Your task to perform on an android device: Open the Play Movies app and select the watchlist tab. Image 0: 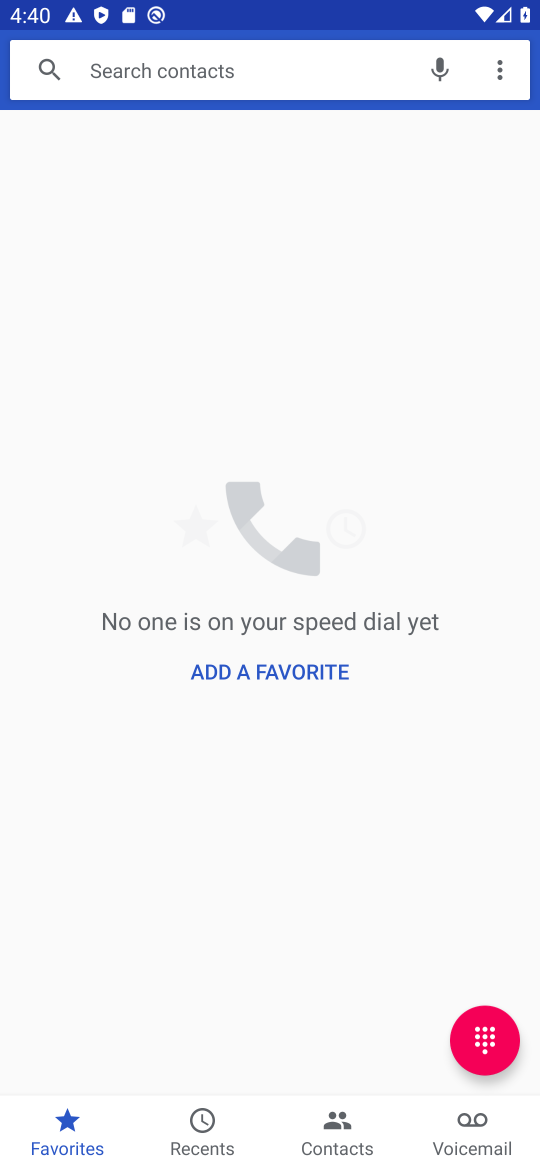
Step 0: press home button
Your task to perform on an android device: Open the Play Movies app and select the watchlist tab. Image 1: 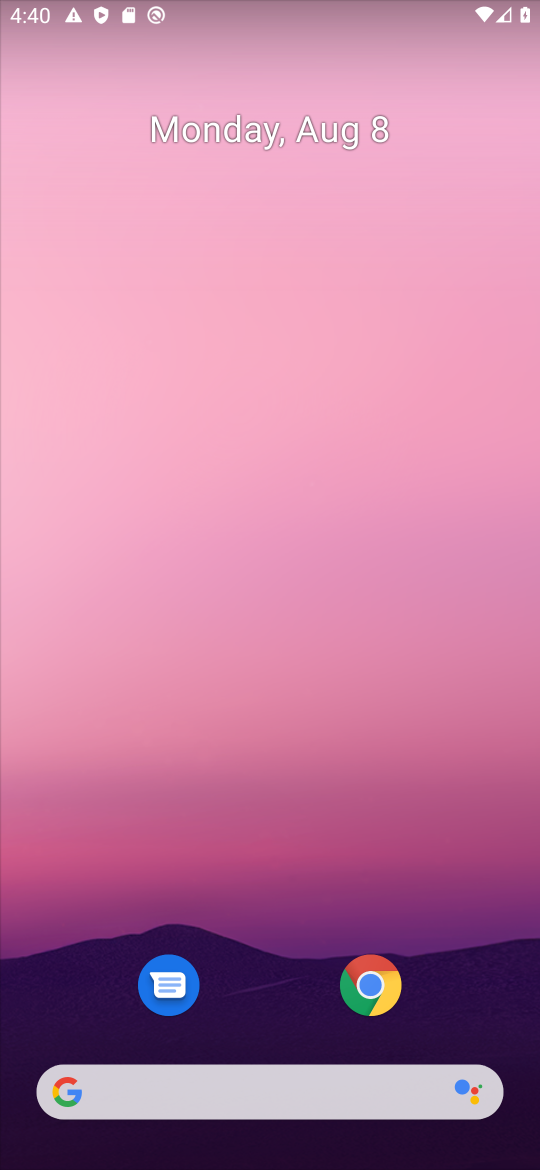
Step 1: drag from (368, 852) to (335, 166)
Your task to perform on an android device: Open the Play Movies app and select the watchlist tab. Image 2: 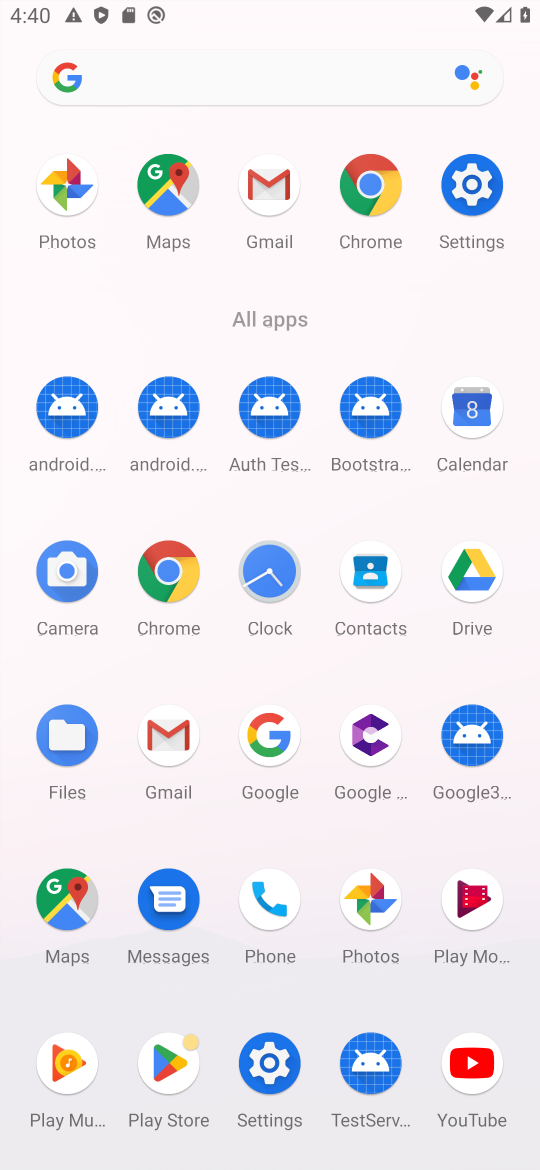
Step 2: click (372, 176)
Your task to perform on an android device: Open the Play Movies app and select the watchlist tab. Image 3: 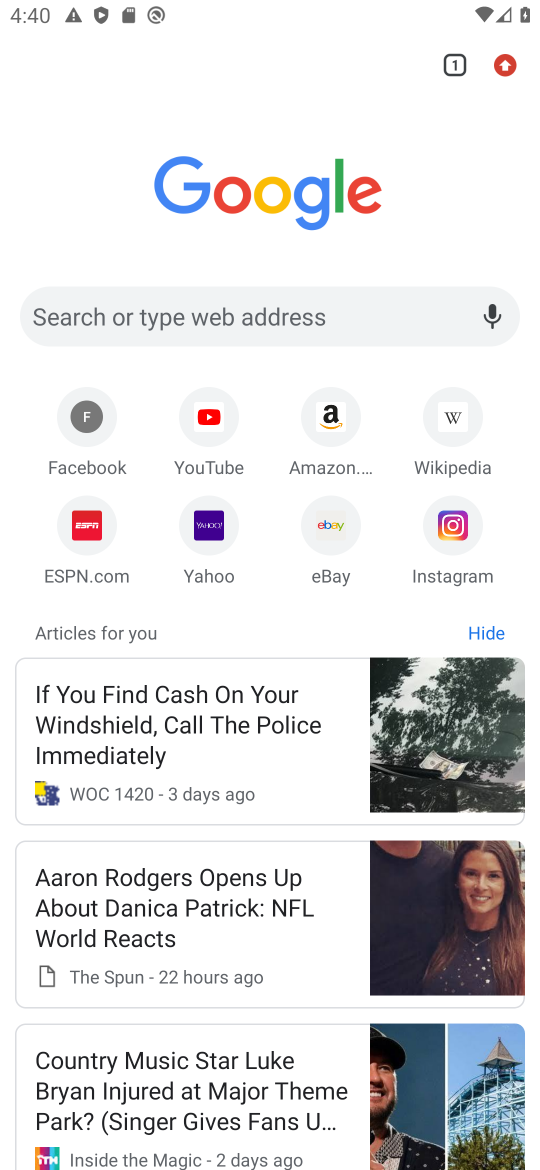
Step 3: task complete